Your task to perform on an android device: Show the shopping cart on bestbuy. Search for "logitech g502" on bestbuy, select the first entry, and add it to the cart. Image 0: 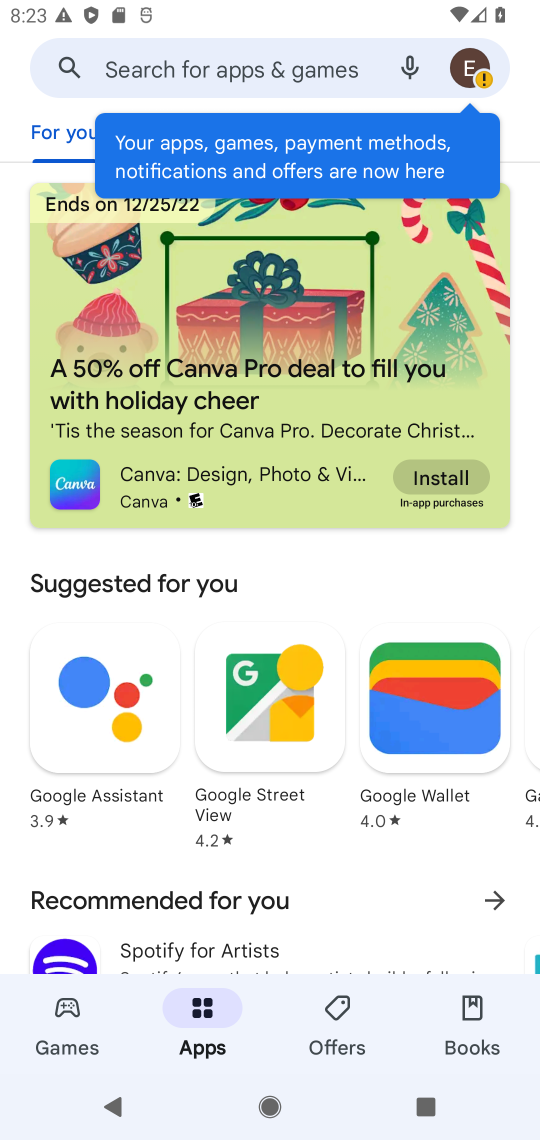
Step 0: press home button
Your task to perform on an android device: Show the shopping cart on bestbuy. Search for "logitech g502" on bestbuy, select the first entry, and add it to the cart. Image 1: 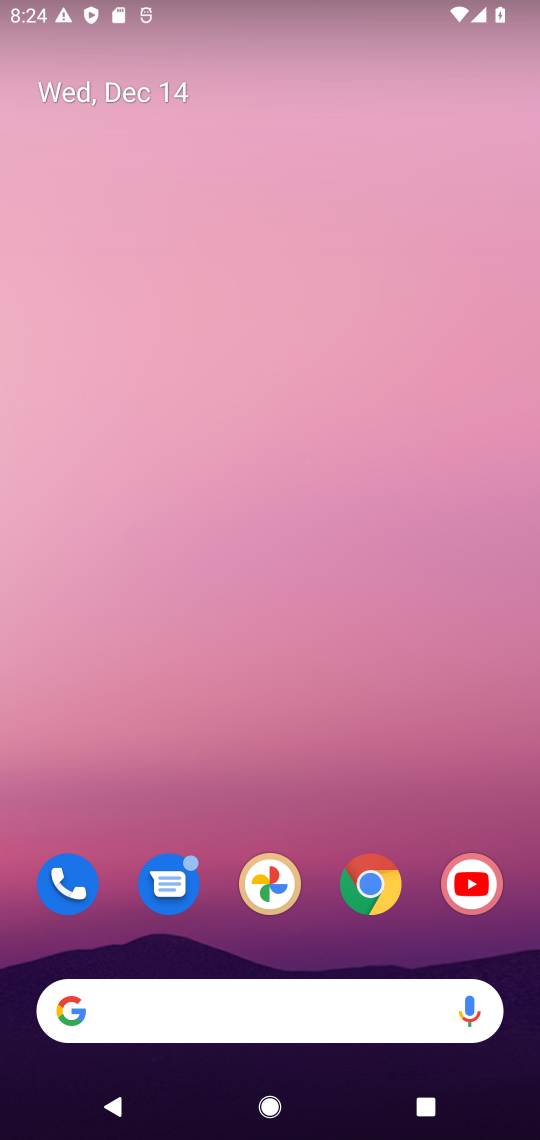
Step 1: click (358, 880)
Your task to perform on an android device: Show the shopping cart on bestbuy. Search for "logitech g502" on bestbuy, select the first entry, and add it to the cart. Image 2: 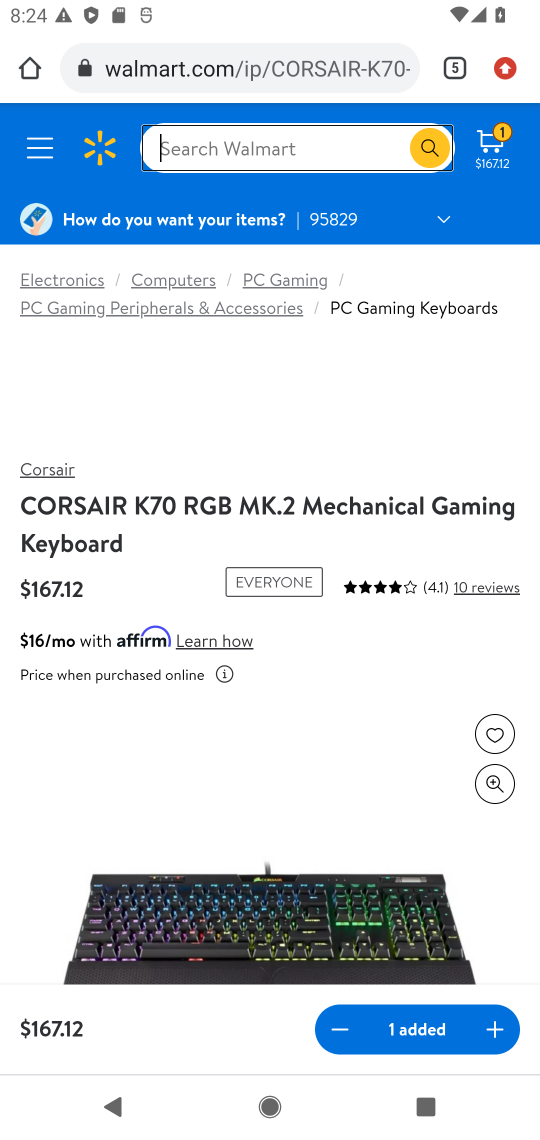
Step 2: click (452, 63)
Your task to perform on an android device: Show the shopping cart on bestbuy. Search for "logitech g502" on bestbuy, select the first entry, and add it to the cart. Image 3: 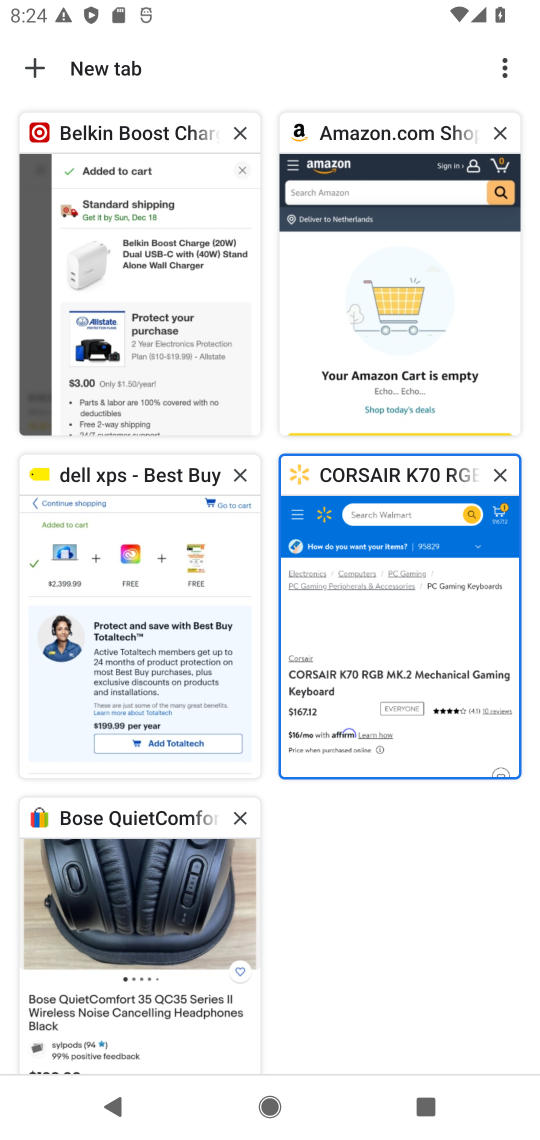
Step 3: click (153, 590)
Your task to perform on an android device: Show the shopping cart on bestbuy. Search for "logitech g502" on bestbuy, select the first entry, and add it to the cart. Image 4: 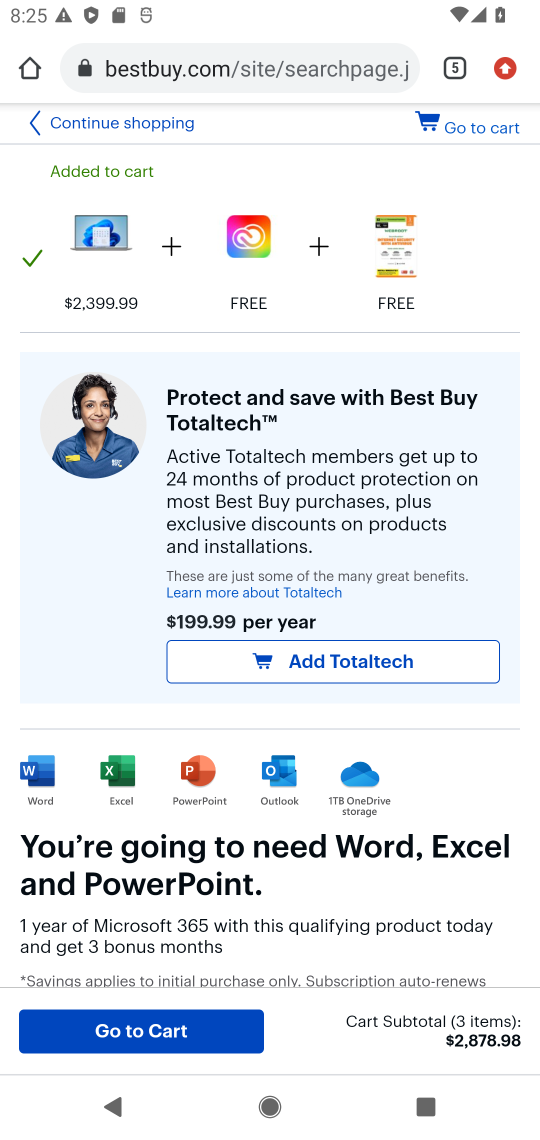
Step 4: click (105, 1027)
Your task to perform on an android device: Show the shopping cart on bestbuy. Search for "logitech g502" on bestbuy, select the first entry, and add it to the cart. Image 5: 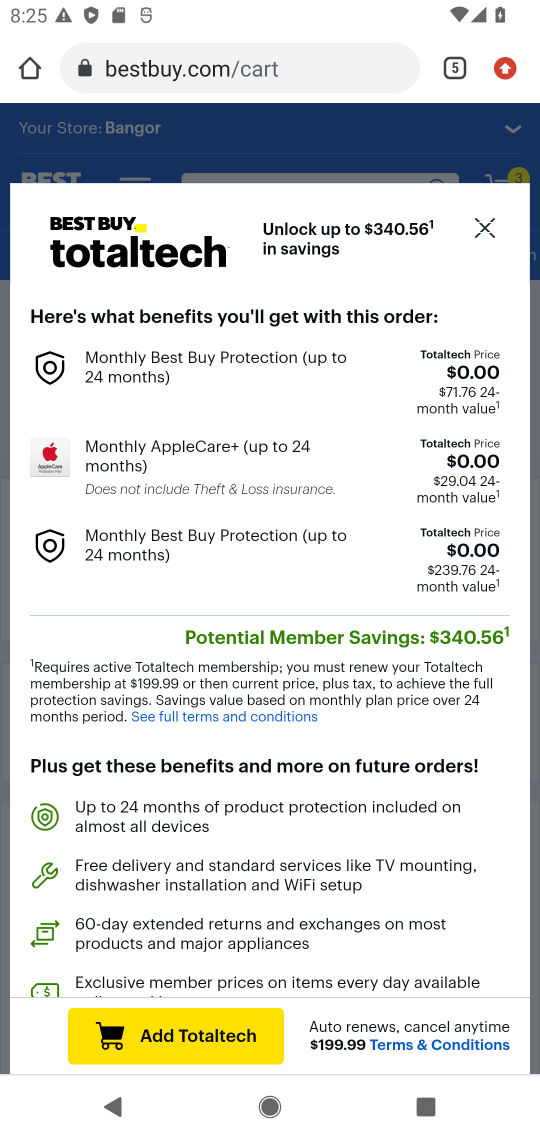
Step 5: click (303, 192)
Your task to perform on an android device: Show the shopping cart on bestbuy. Search for "logitech g502" on bestbuy, select the first entry, and add it to the cart. Image 6: 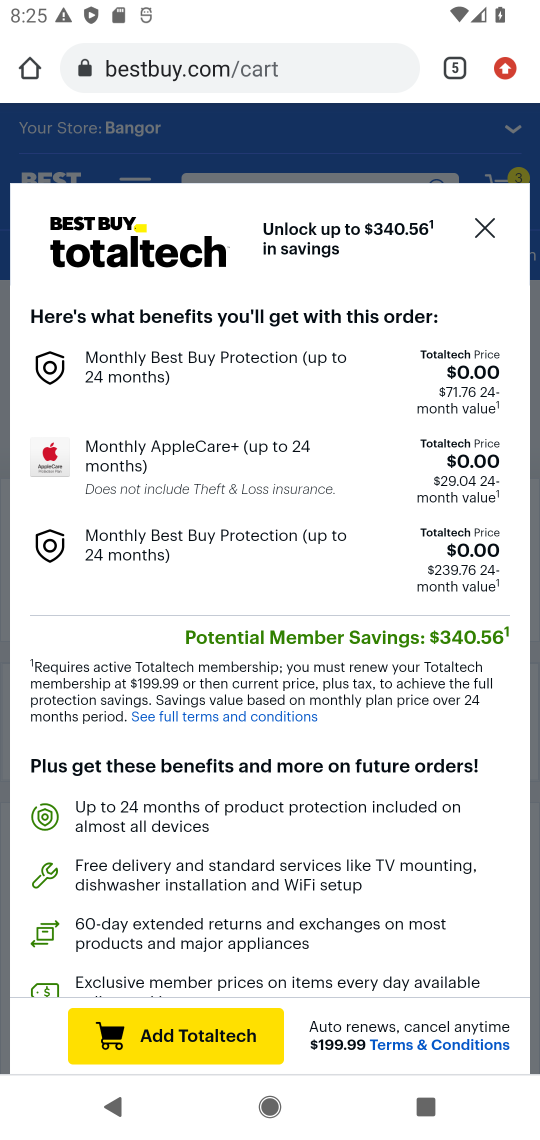
Step 6: click (303, 192)
Your task to perform on an android device: Show the shopping cart on bestbuy. Search for "logitech g502" on bestbuy, select the first entry, and add it to the cart. Image 7: 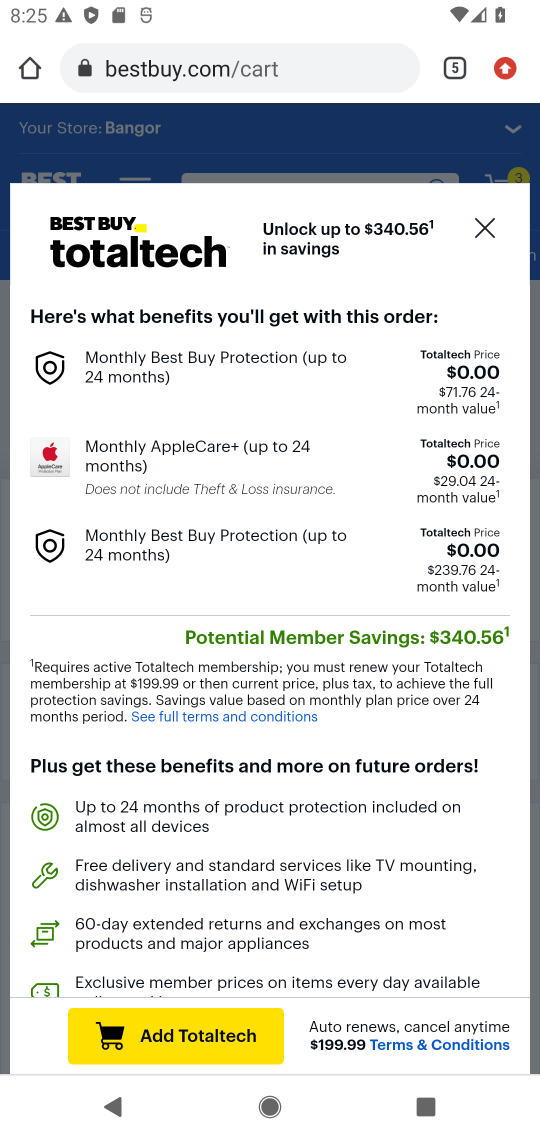
Step 7: click (483, 227)
Your task to perform on an android device: Show the shopping cart on bestbuy. Search for "logitech g502" on bestbuy, select the first entry, and add it to the cart. Image 8: 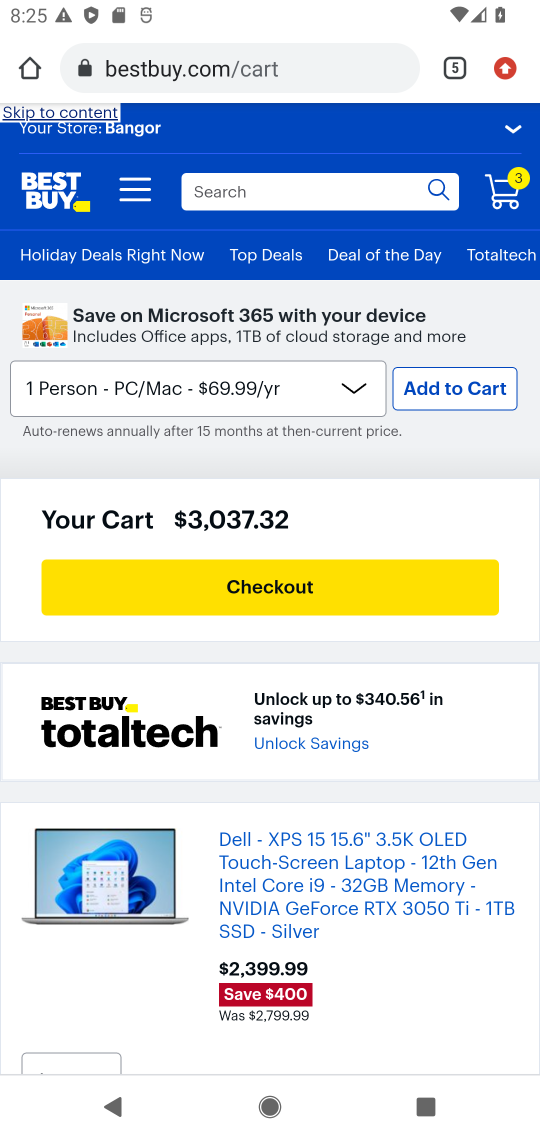
Step 8: click (276, 196)
Your task to perform on an android device: Show the shopping cart on bestbuy. Search for "logitech g502" on bestbuy, select the first entry, and add it to the cart. Image 9: 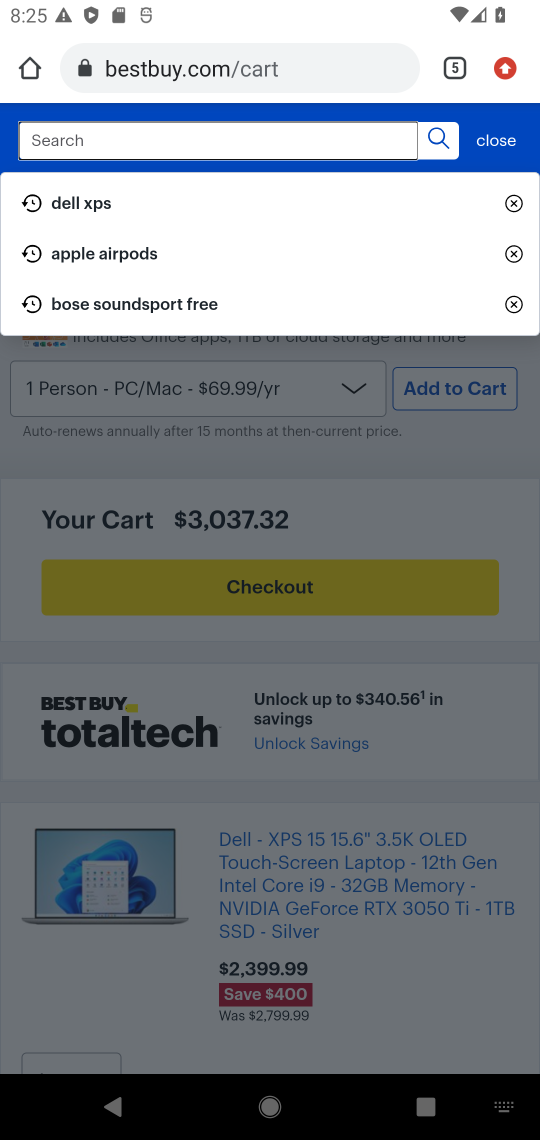
Step 9: type "logitech g502"
Your task to perform on an android device: Show the shopping cart on bestbuy. Search for "logitech g502" on bestbuy, select the first entry, and add it to the cart. Image 10: 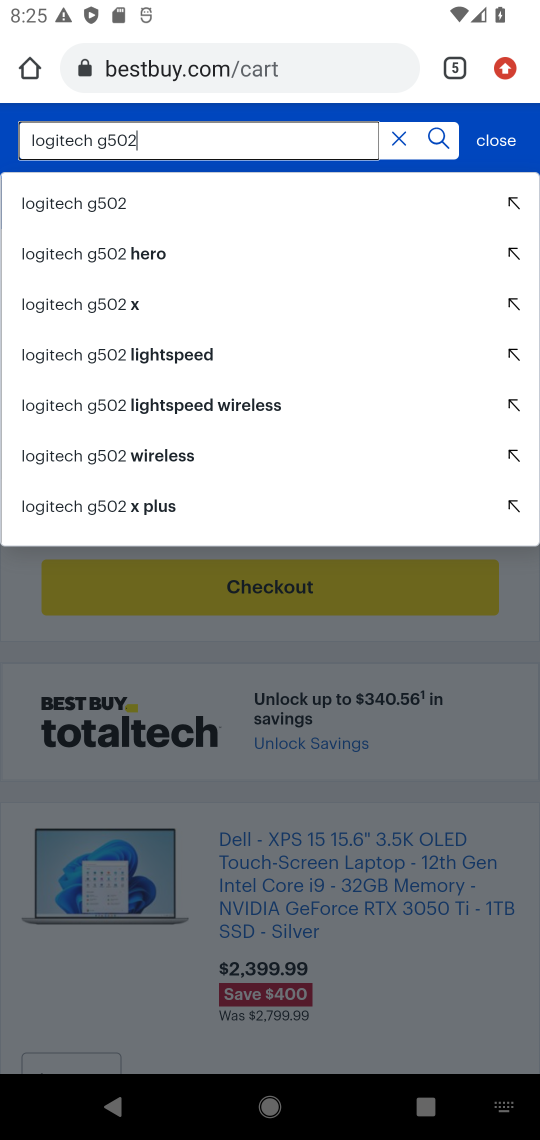
Step 10: click (70, 199)
Your task to perform on an android device: Show the shopping cart on bestbuy. Search for "logitech g502" on bestbuy, select the first entry, and add it to the cart. Image 11: 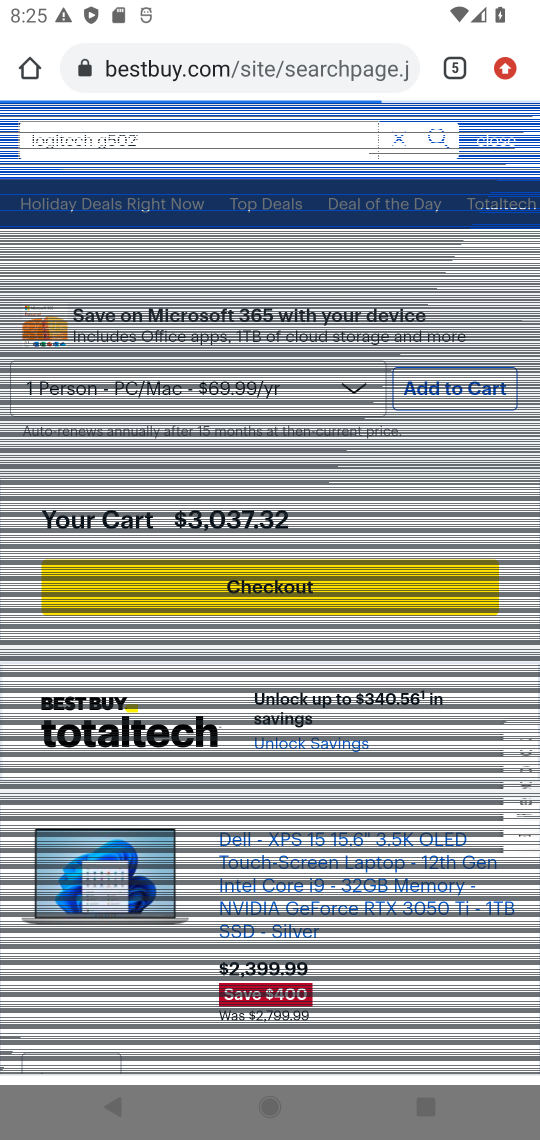
Step 11: click (443, 142)
Your task to perform on an android device: Show the shopping cart on bestbuy. Search for "logitech g502" on bestbuy, select the first entry, and add it to the cart. Image 12: 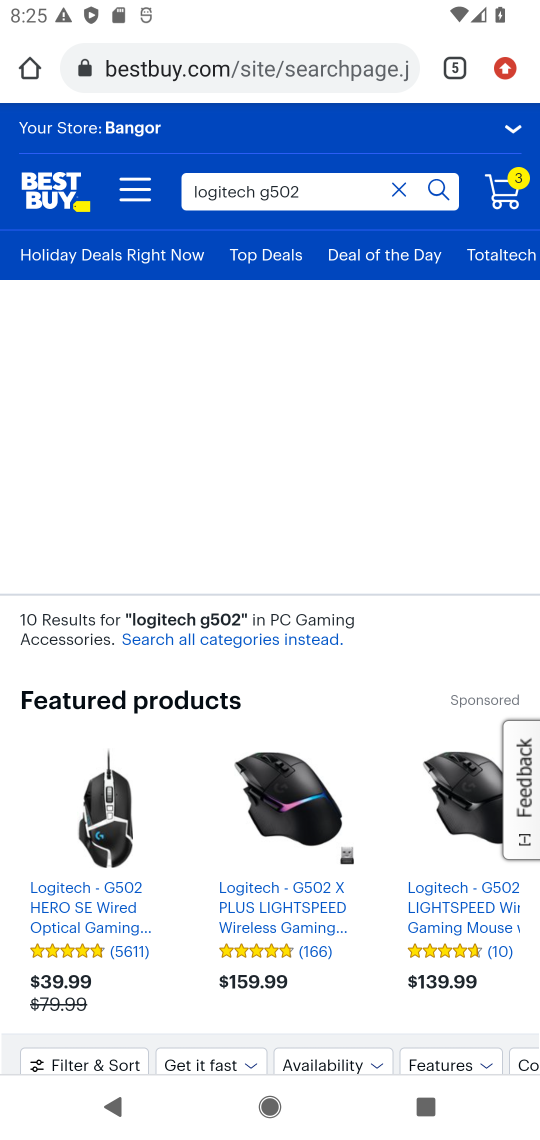
Step 12: drag from (169, 978) to (187, 503)
Your task to perform on an android device: Show the shopping cart on bestbuy. Search for "logitech g502" on bestbuy, select the first entry, and add it to the cart. Image 13: 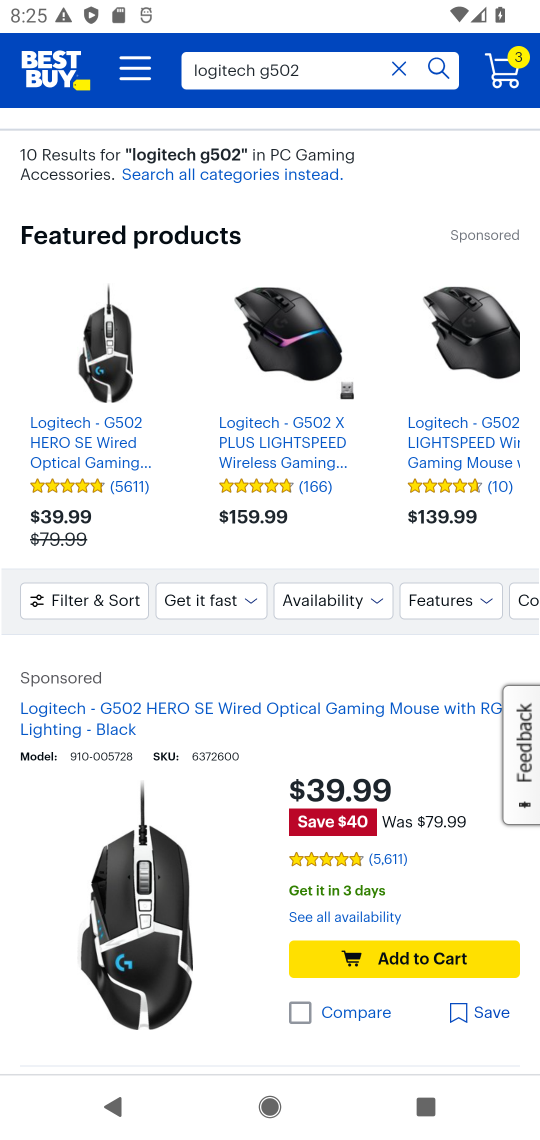
Step 13: click (414, 958)
Your task to perform on an android device: Show the shopping cart on bestbuy. Search for "logitech g502" on bestbuy, select the first entry, and add it to the cart. Image 14: 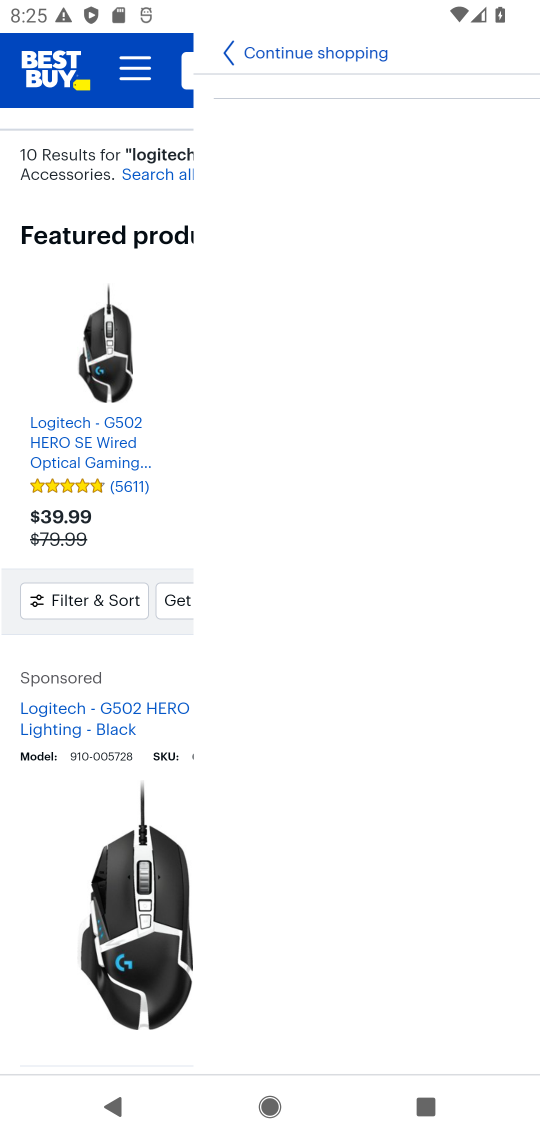
Step 14: task complete